Your task to perform on an android device: What's on my calendar tomorrow? Image 0: 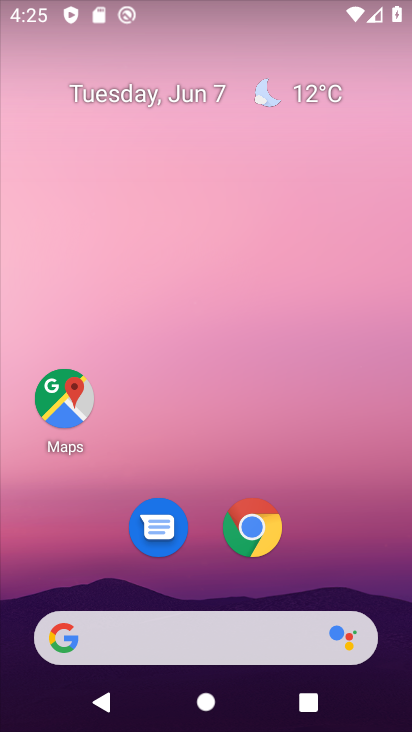
Step 0: drag from (343, 560) to (286, 84)
Your task to perform on an android device: What's on my calendar tomorrow? Image 1: 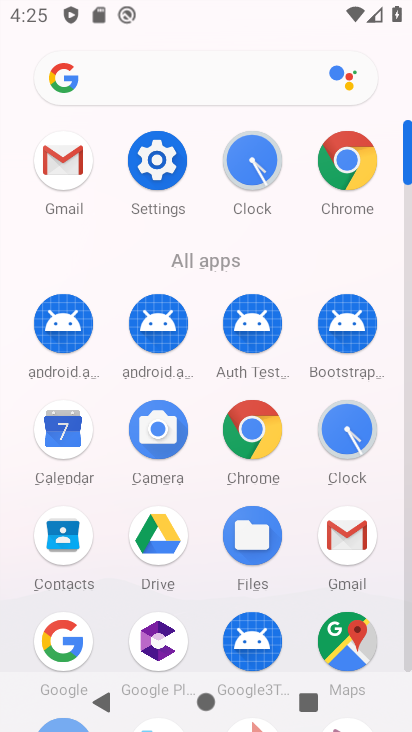
Step 1: click (65, 430)
Your task to perform on an android device: What's on my calendar tomorrow? Image 2: 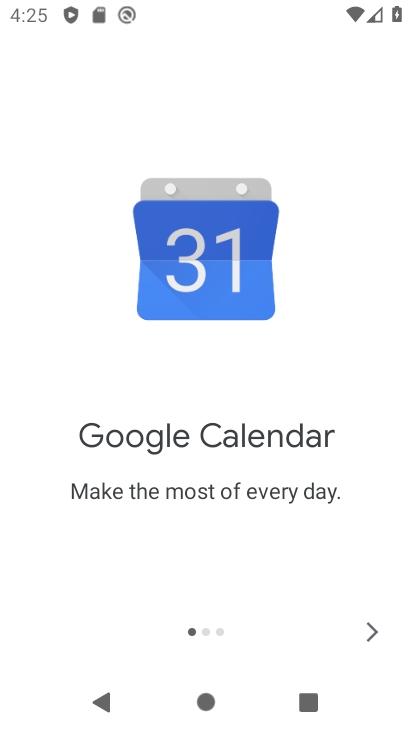
Step 2: click (374, 628)
Your task to perform on an android device: What's on my calendar tomorrow? Image 3: 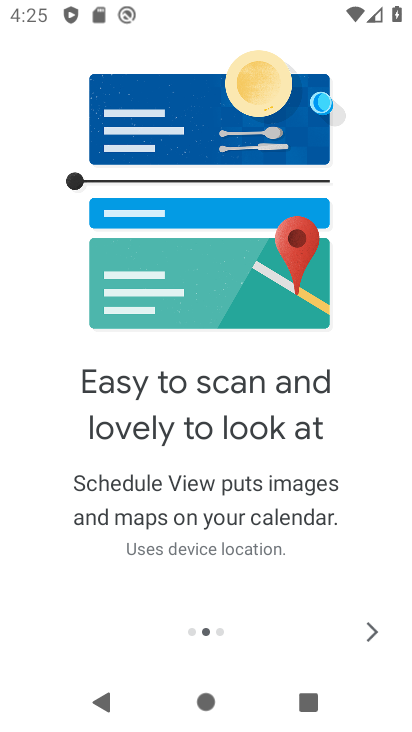
Step 3: click (374, 628)
Your task to perform on an android device: What's on my calendar tomorrow? Image 4: 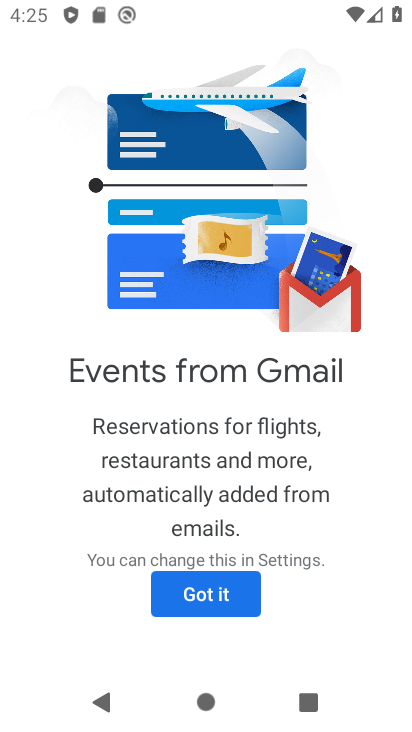
Step 4: click (226, 600)
Your task to perform on an android device: What's on my calendar tomorrow? Image 5: 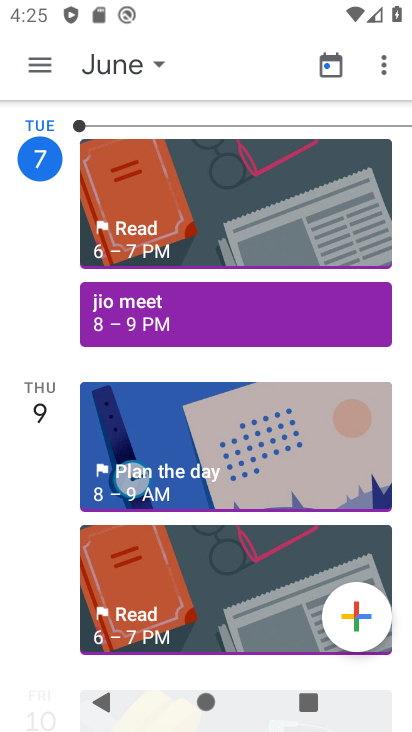
Step 5: click (155, 64)
Your task to perform on an android device: What's on my calendar tomorrow? Image 6: 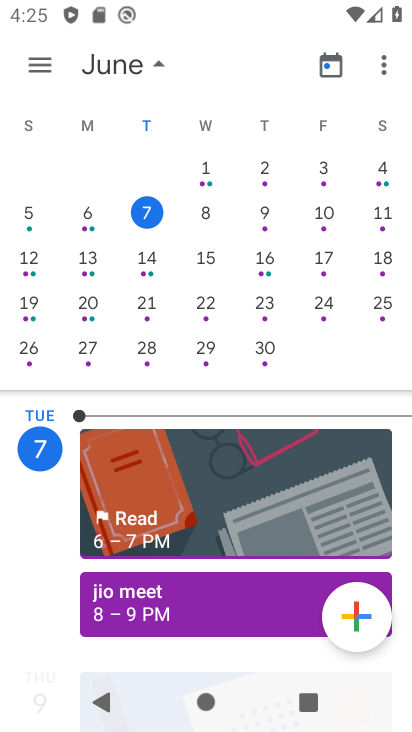
Step 6: click (203, 209)
Your task to perform on an android device: What's on my calendar tomorrow? Image 7: 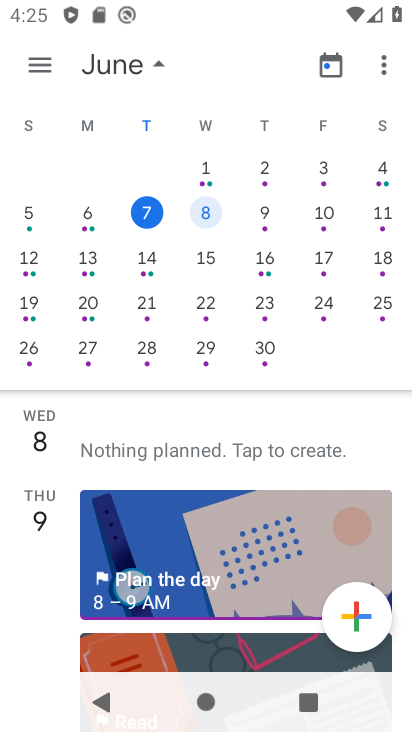
Step 7: click (43, 69)
Your task to perform on an android device: What's on my calendar tomorrow? Image 8: 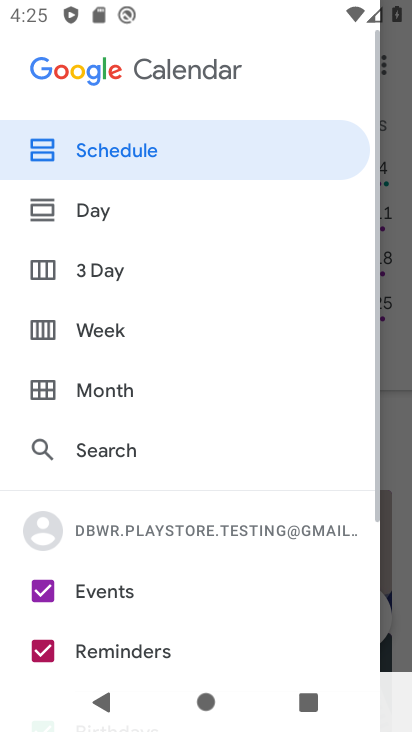
Step 8: click (165, 157)
Your task to perform on an android device: What's on my calendar tomorrow? Image 9: 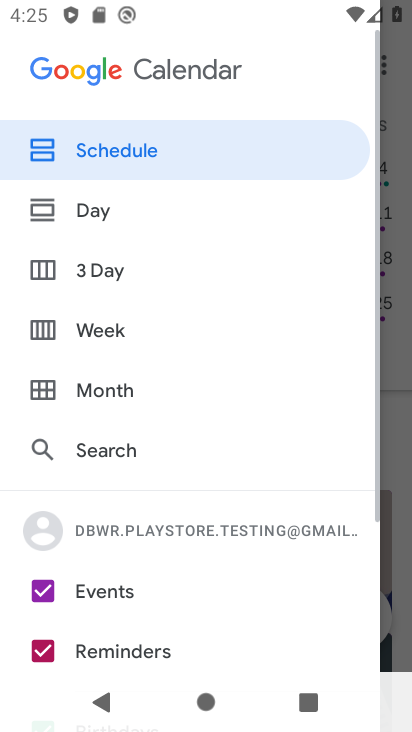
Step 9: click (165, 157)
Your task to perform on an android device: What's on my calendar tomorrow? Image 10: 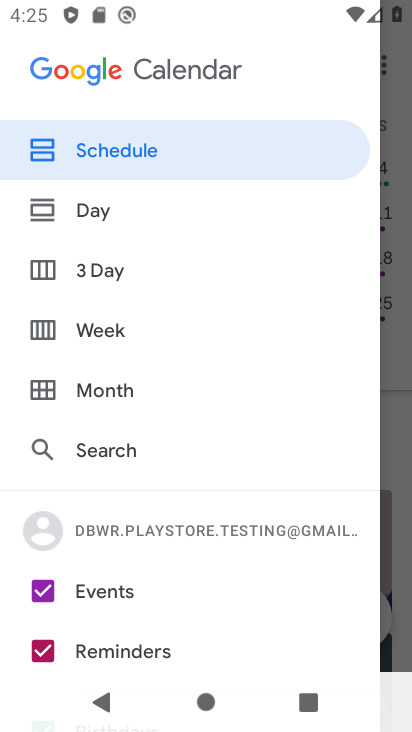
Step 10: click (133, 148)
Your task to perform on an android device: What's on my calendar tomorrow? Image 11: 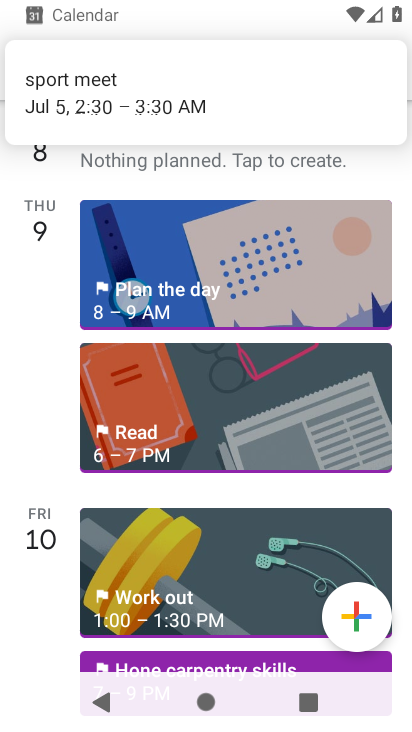
Step 11: task complete